Your task to perform on an android device: turn on javascript in the chrome app Image 0: 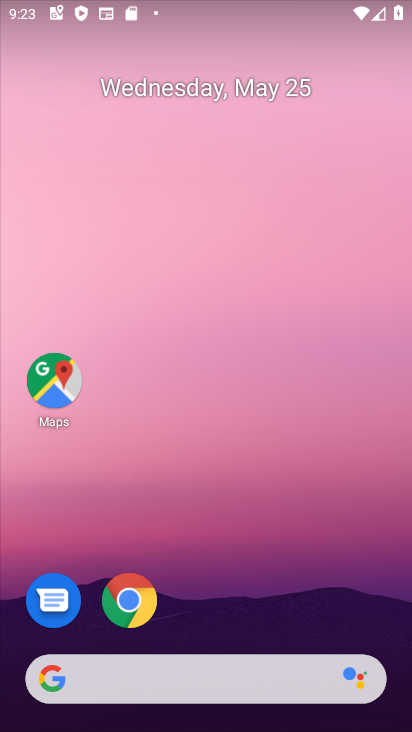
Step 0: drag from (275, 582) to (221, 25)
Your task to perform on an android device: turn on javascript in the chrome app Image 1: 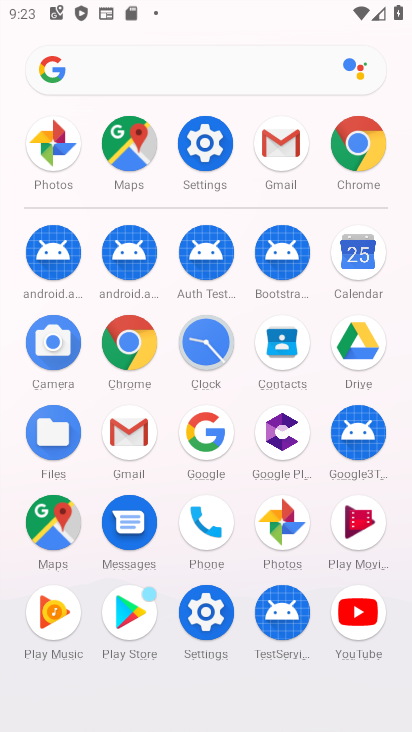
Step 1: drag from (15, 597) to (6, 227)
Your task to perform on an android device: turn on javascript in the chrome app Image 2: 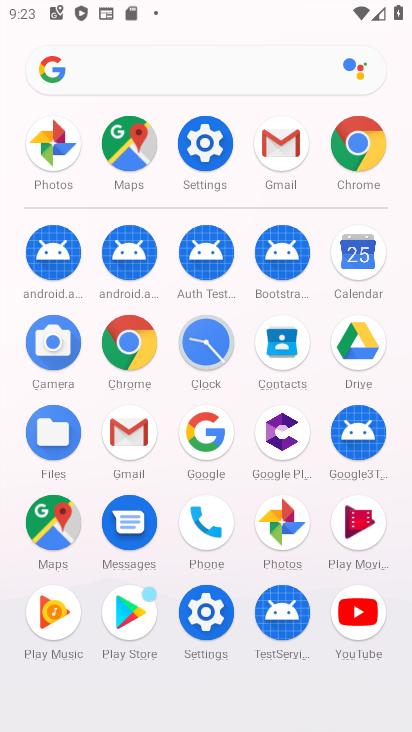
Step 2: click (130, 343)
Your task to perform on an android device: turn on javascript in the chrome app Image 3: 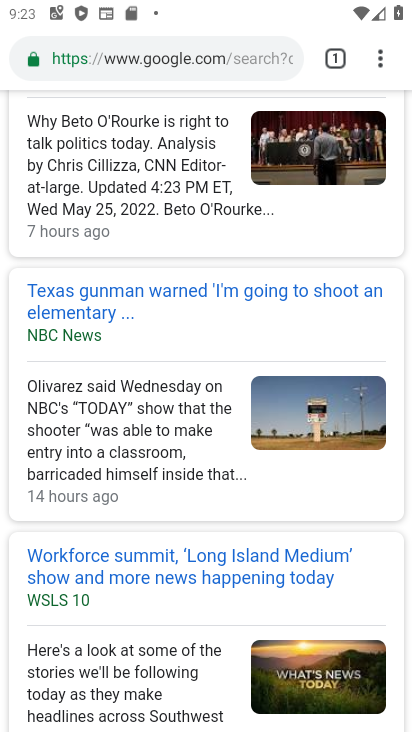
Step 3: drag from (377, 60) to (185, 618)
Your task to perform on an android device: turn on javascript in the chrome app Image 4: 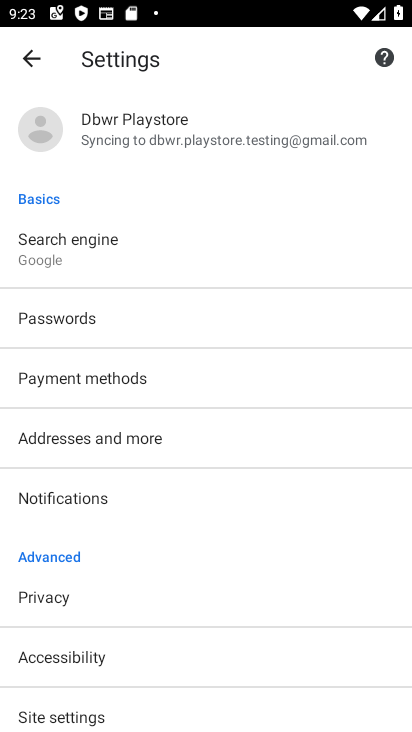
Step 4: drag from (175, 689) to (246, 339)
Your task to perform on an android device: turn on javascript in the chrome app Image 5: 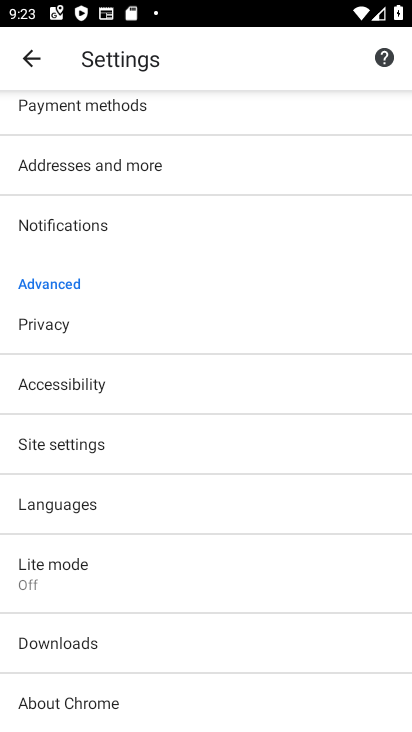
Step 5: click (92, 435)
Your task to perform on an android device: turn on javascript in the chrome app Image 6: 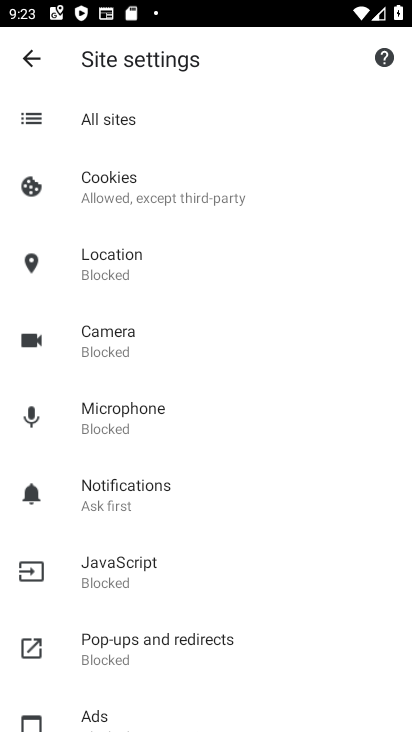
Step 6: drag from (214, 616) to (240, 205)
Your task to perform on an android device: turn on javascript in the chrome app Image 7: 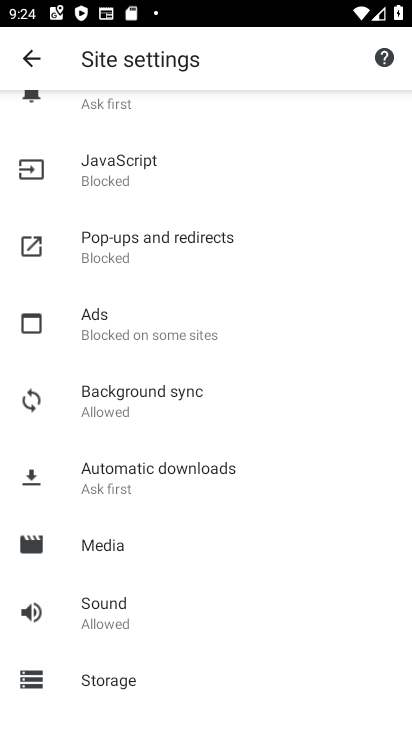
Step 7: drag from (177, 617) to (241, 170)
Your task to perform on an android device: turn on javascript in the chrome app Image 8: 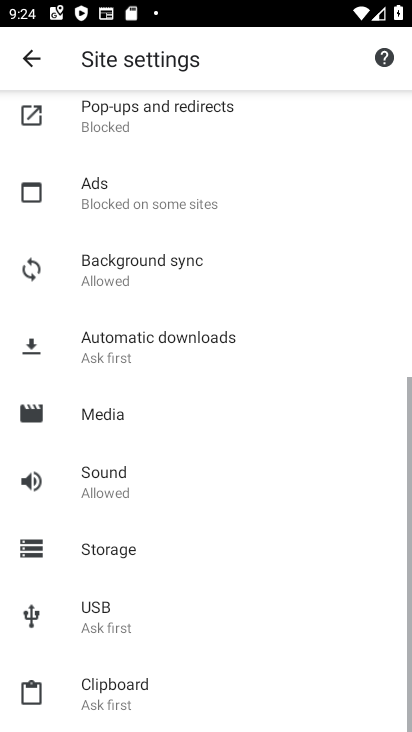
Step 8: drag from (245, 229) to (253, 668)
Your task to perform on an android device: turn on javascript in the chrome app Image 9: 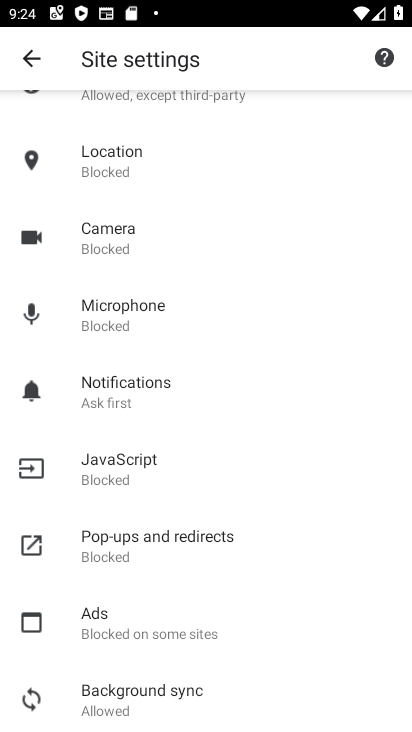
Step 9: drag from (262, 226) to (264, 662)
Your task to perform on an android device: turn on javascript in the chrome app Image 10: 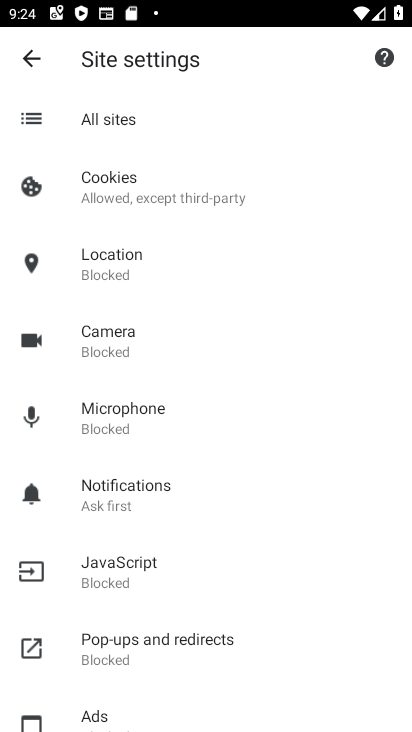
Step 10: click (125, 566)
Your task to perform on an android device: turn on javascript in the chrome app Image 11: 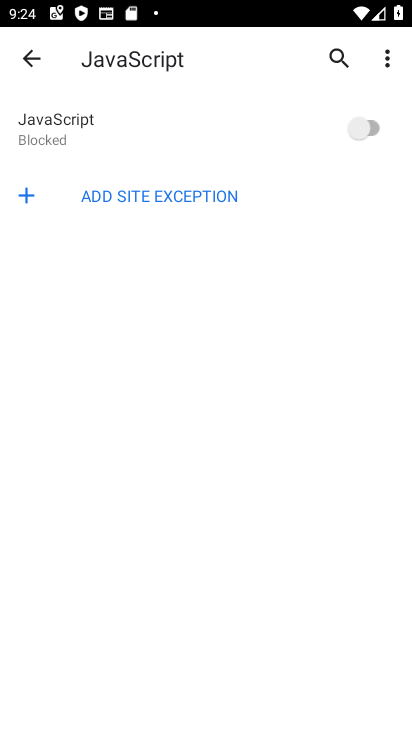
Step 11: click (367, 118)
Your task to perform on an android device: turn on javascript in the chrome app Image 12: 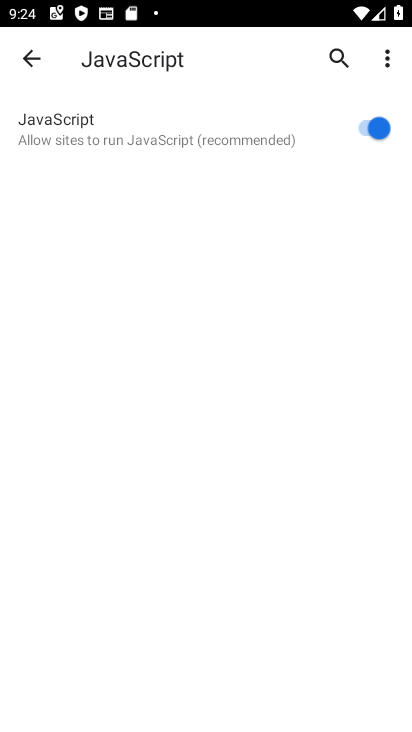
Step 12: task complete